Your task to perform on an android device: Open Wikipedia Image 0: 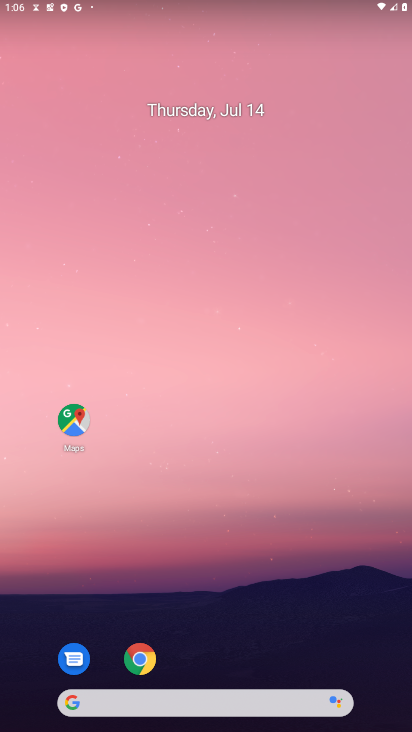
Step 0: click (115, 700)
Your task to perform on an android device: Open Wikipedia Image 1: 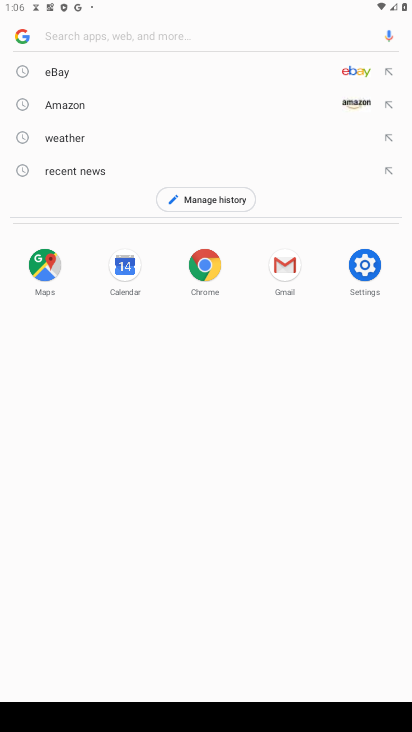
Step 1: type "Wikipedia"
Your task to perform on an android device: Open Wikipedia Image 2: 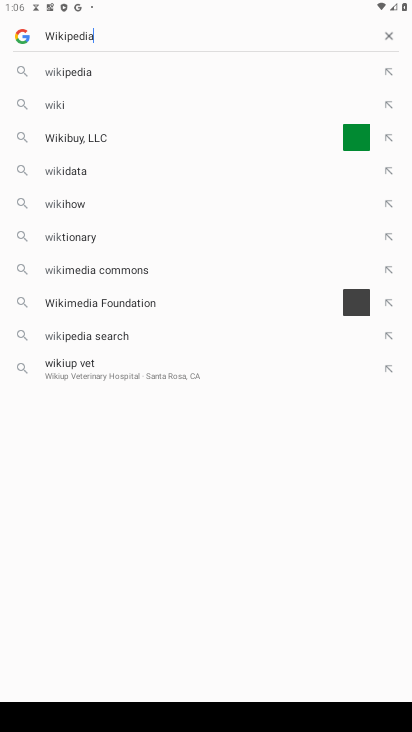
Step 2: type ""
Your task to perform on an android device: Open Wikipedia Image 3: 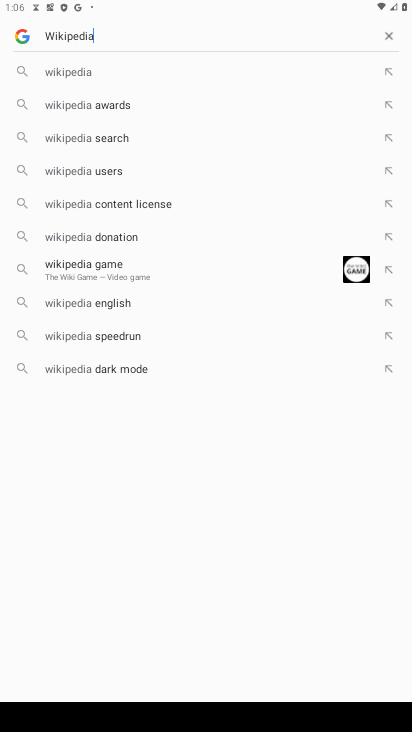
Step 3: click (85, 79)
Your task to perform on an android device: Open Wikipedia Image 4: 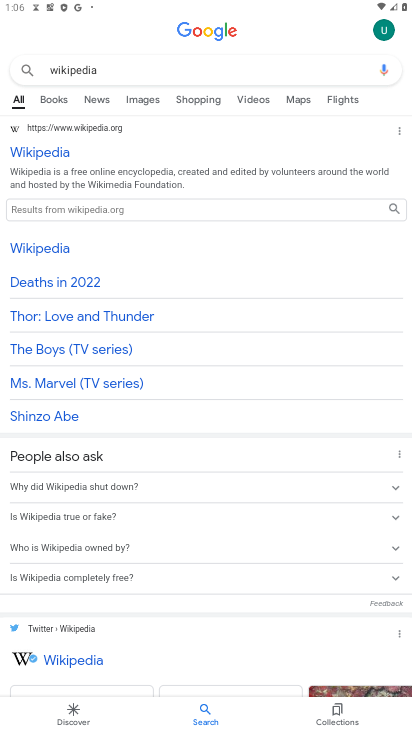
Step 4: task complete